Your task to perform on an android device: Open Reddit.com Image 0: 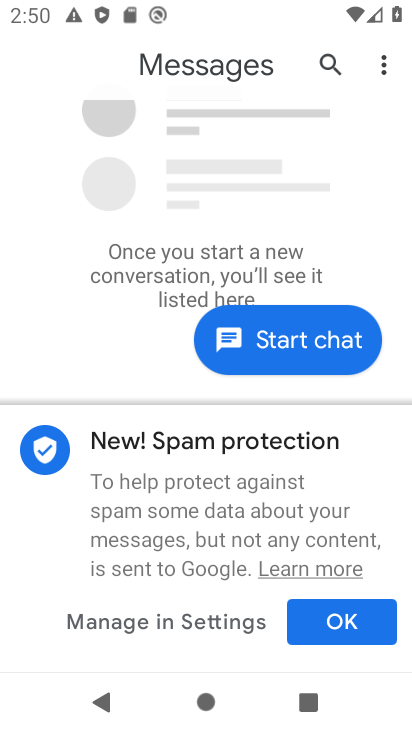
Step 0: press home button
Your task to perform on an android device: Open Reddit.com Image 1: 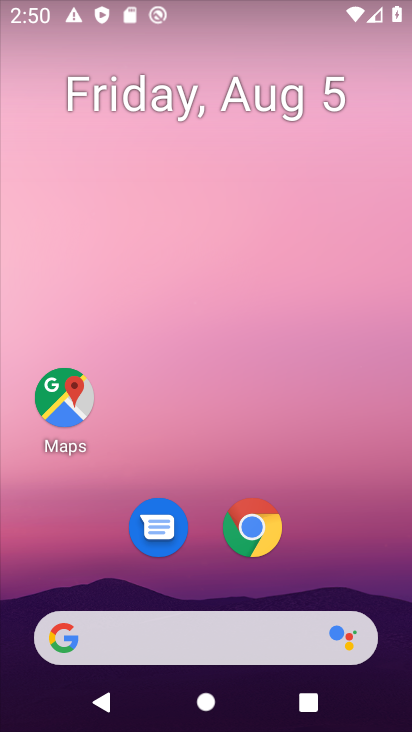
Step 1: drag from (281, 582) to (281, 307)
Your task to perform on an android device: Open Reddit.com Image 2: 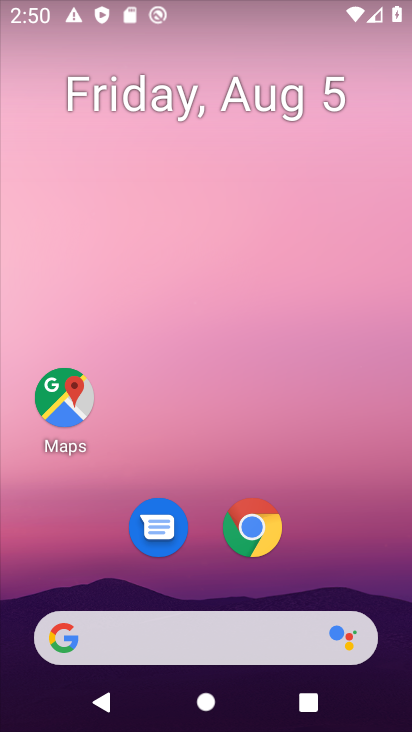
Step 2: click (247, 525)
Your task to perform on an android device: Open Reddit.com Image 3: 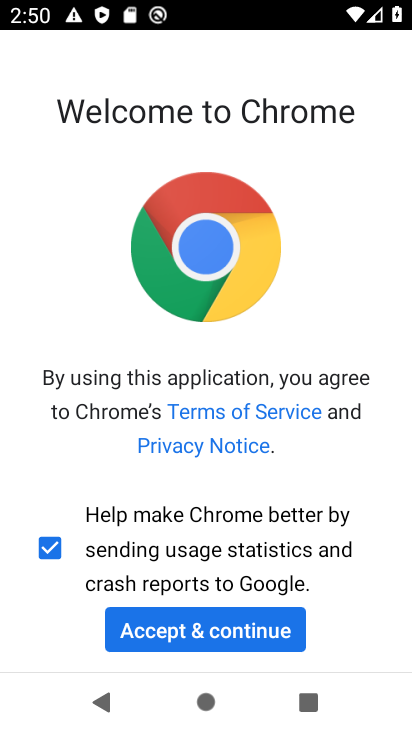
Step 3: click (213, 638)
Your task to perform on an android device: Open Reddit.com Image 4: 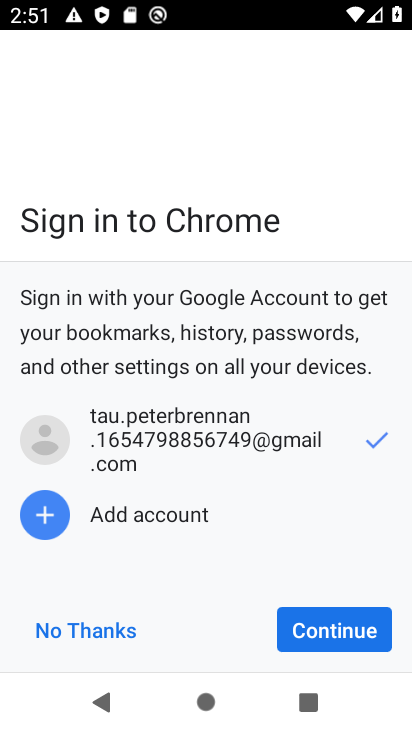
Step 4: click (346, 621)
Your task to perform on an android device: Open Reddit.com Image 5: 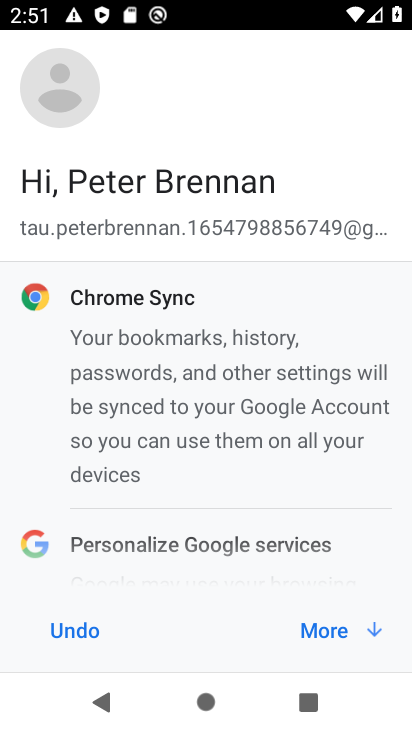
Step 5: click (331, 630)
Your task to perform on an android device: Open Reddit.com Image 6: 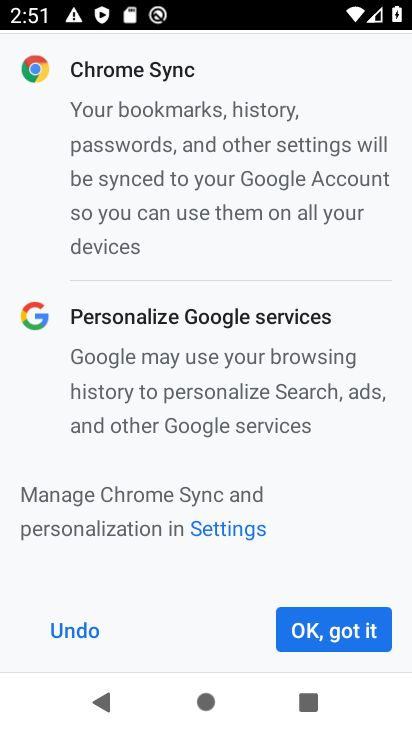
Step 6: click (320, 628)
Your task to perform on an android device: Open Reddit.com Image 7: 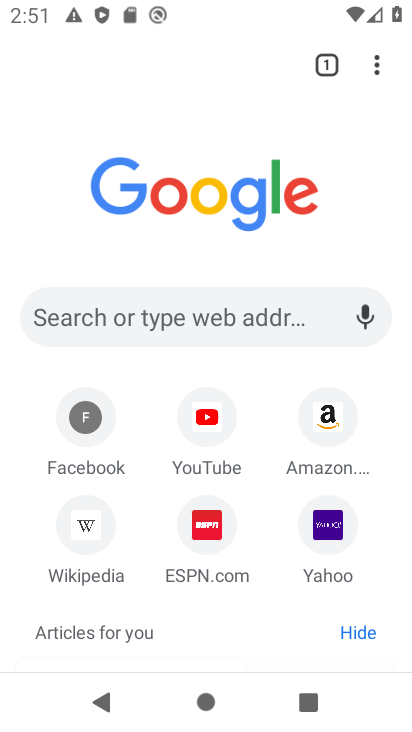
Step 7: click (176, 315)
Your task to perform on an android device: Open Reddit.com Image 8: 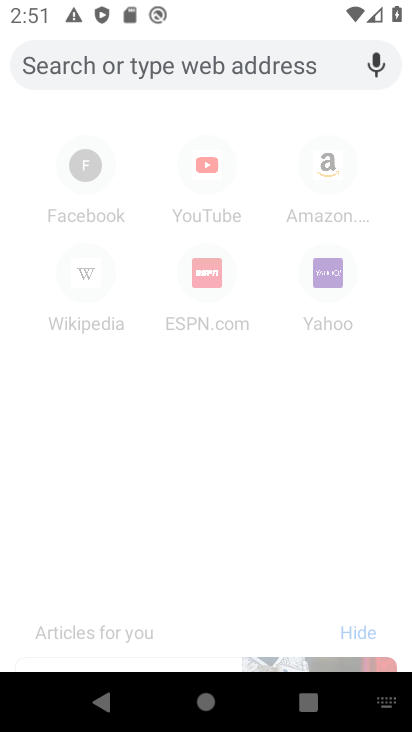
Step 8: type "Reddit.com"
Your task to perform on an android device: Open Reddit.com Image 9: 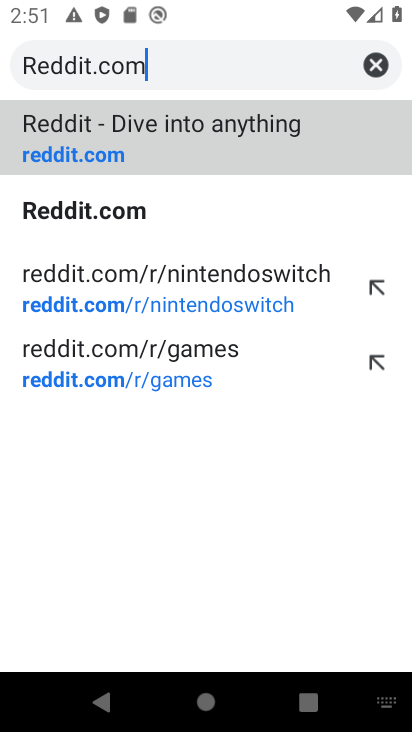
Step 9: type ""
Your task to perform on an android device: Open Reddit.com Image 10: 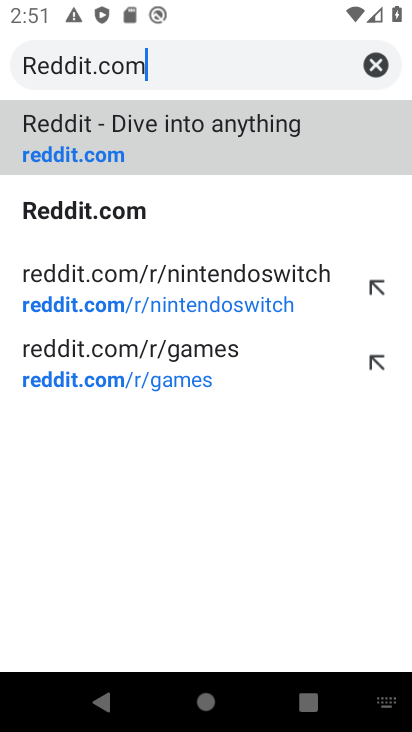
Step 10: click (107, 130)
Your task to perform on an android device: Open Reddit.com Image 11: 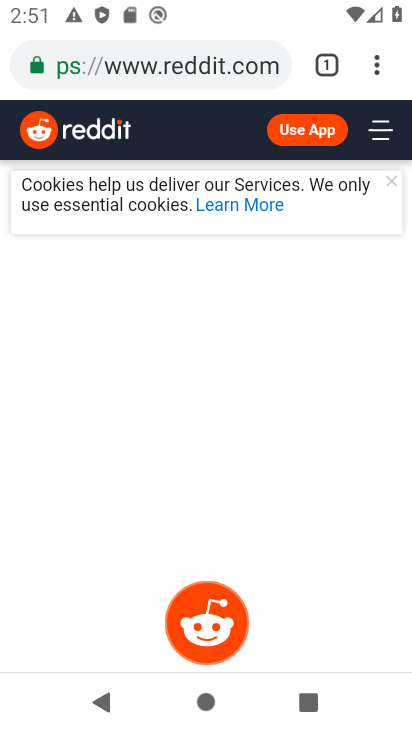
Step 11: task complete